Your task to perform on an android device: Open Youtube and go to "Your channel" Image 0: 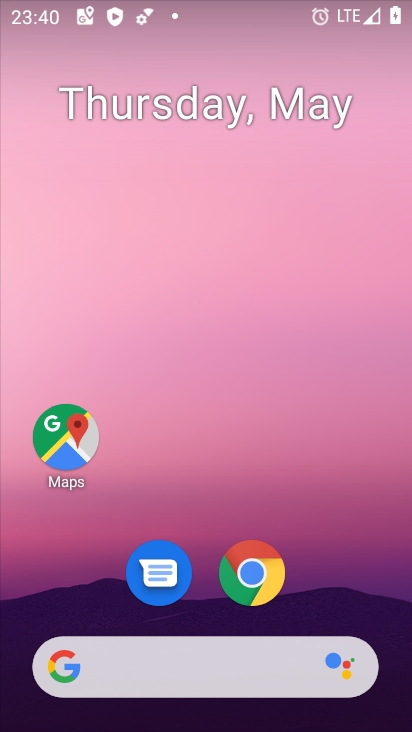
Step 0: drag from (200, 603) to (201, 208)
Your task to perform on an android device: Open Youtube and go to "Your channel" Image 1: 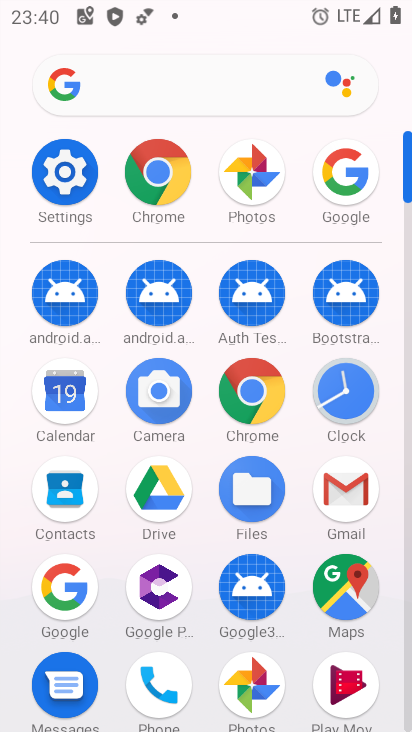
Step 1: drag from (215, 564) to (226, 279)
Your task to perform on an android device: Open Youtube and go to "Your channel" Image 2: 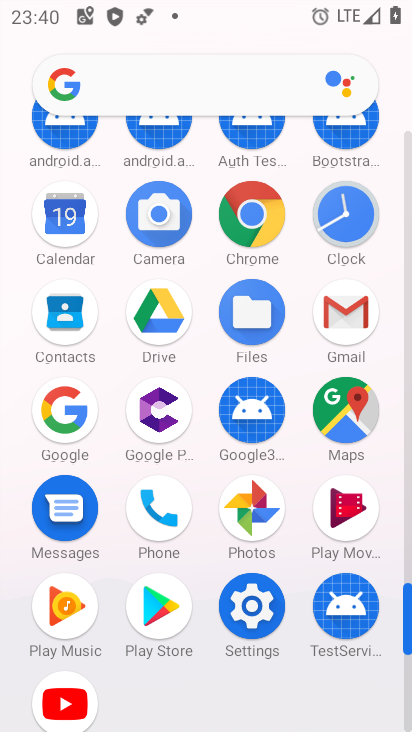
Step 2: click (65, 701)
Your task to perform on an android device: Open Youtube and go to "Your channel" Image 3: 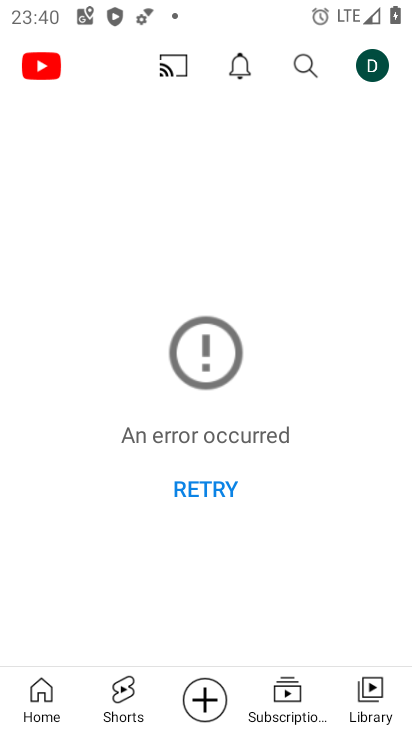
Step 3: click (373, 73)
Your task to perform on an android device: Open Youtube and go to "Your channel" Image 4: 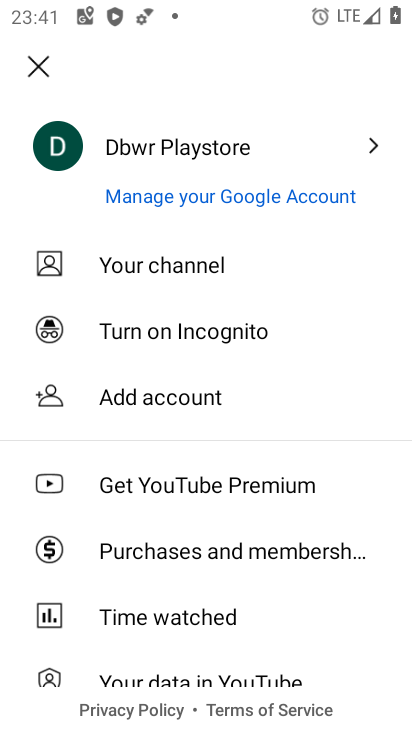
Step 4: click (197, 246)
Your task to perform on an android device: Open Youtube and go to "Your channel" Image 5: 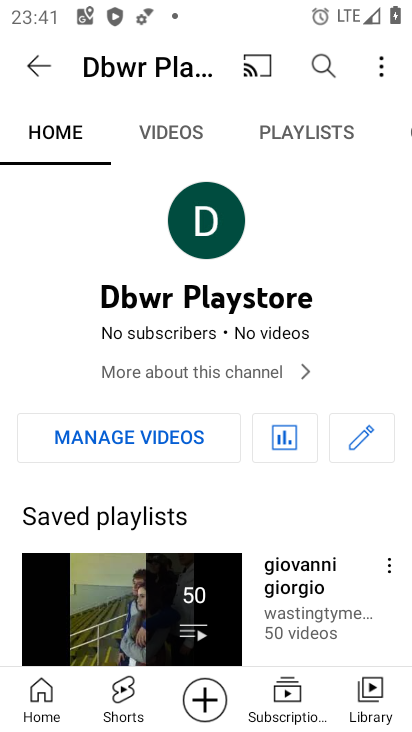
Step 5: task complete